Your task to perform on an android device: Open Youtube and go to "Your channel" Image 0: 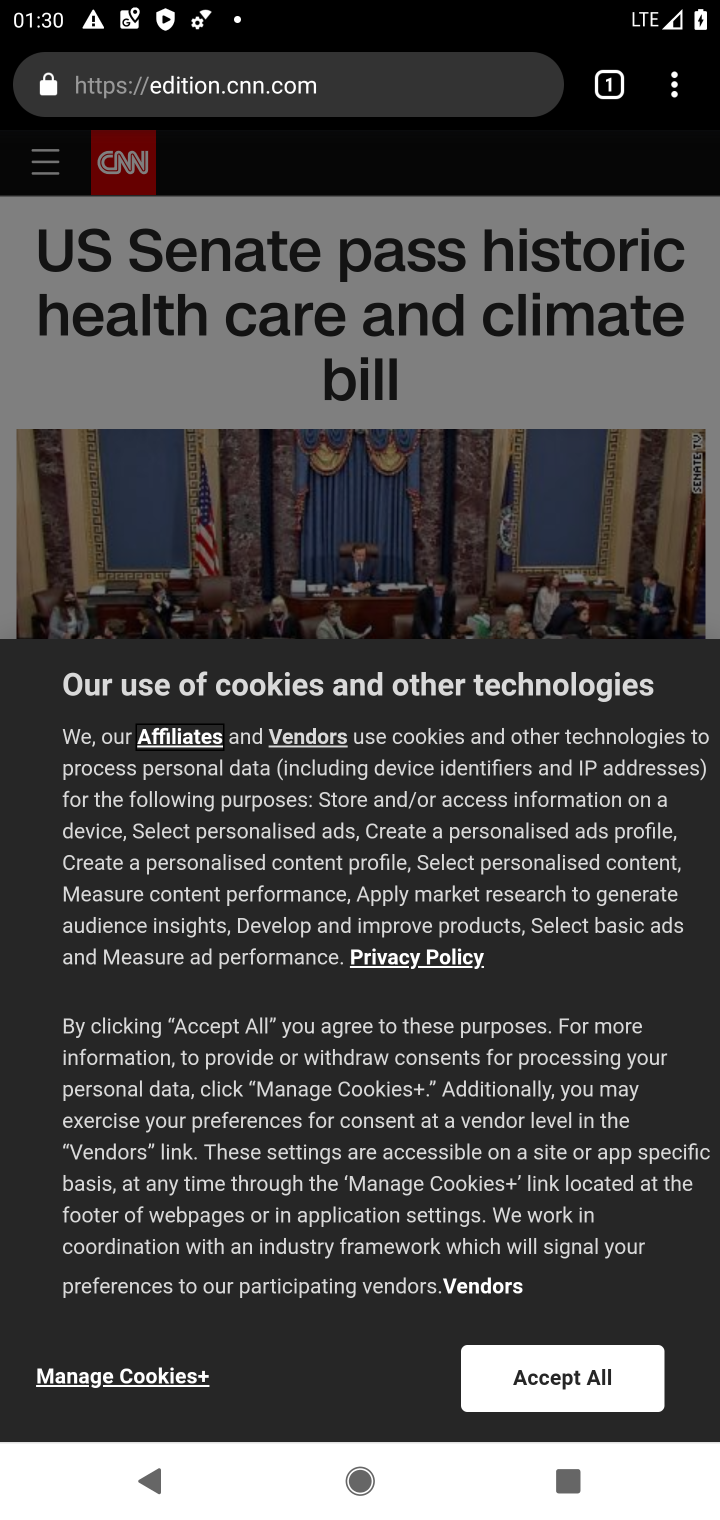
Step 0: press home button
Your task to perform on an android device: Open Youtube and go to "Your channel" Image 1: 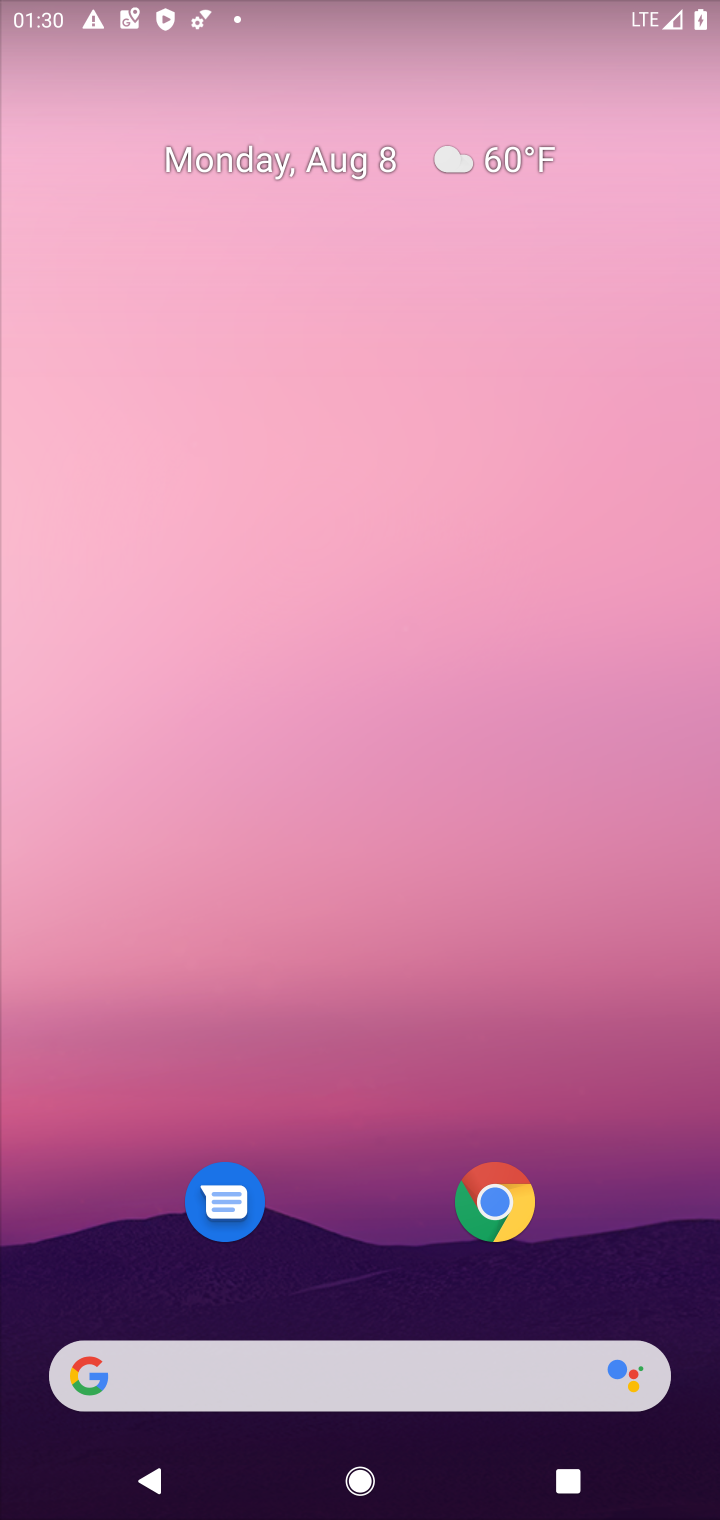
Step 1: drag from (382, 1254) to (323, 49)
Your task to perform on an android device: Open Youtube and go to "Your channel" Image 2: 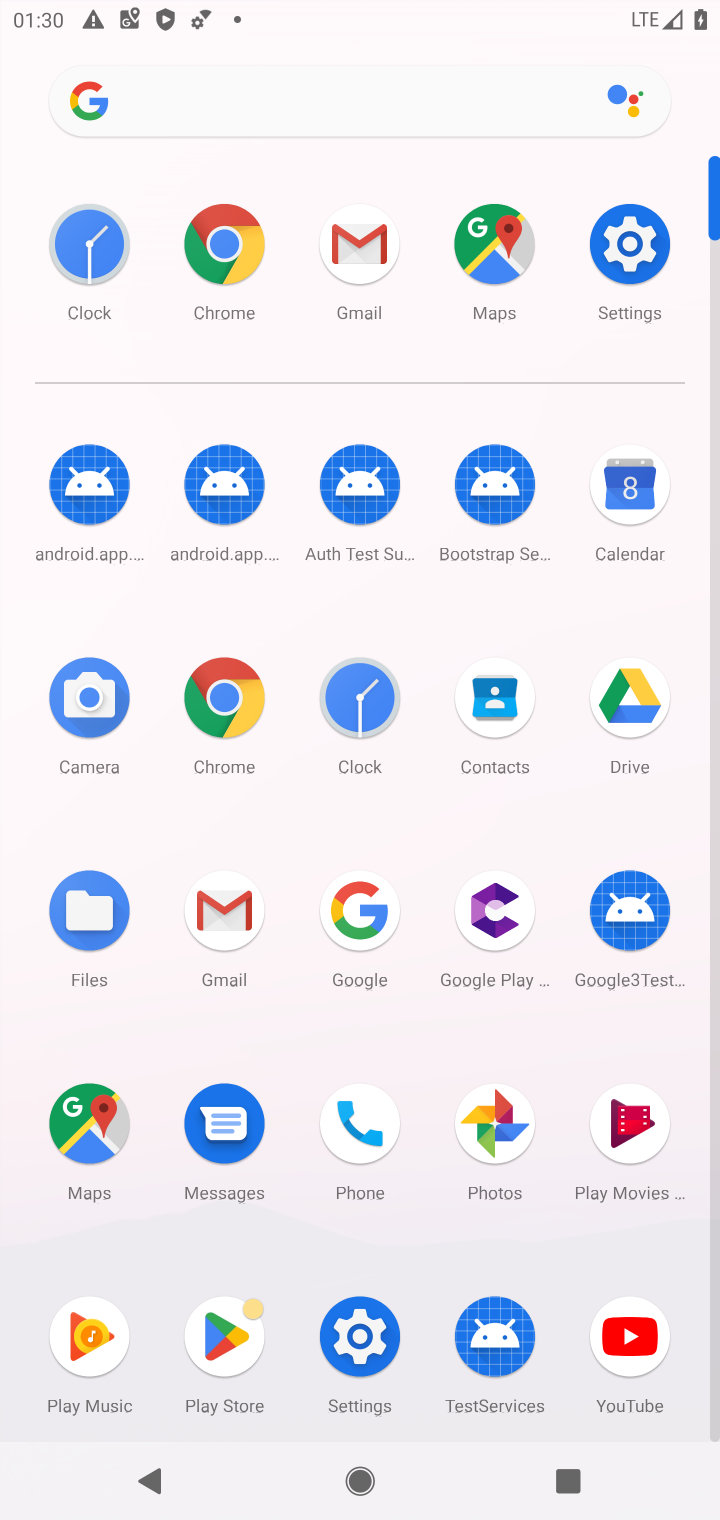
Step 2: click (632, 1328)
Your task to perform on an android device: Open Youtube and go to "Your channel" Image 3: 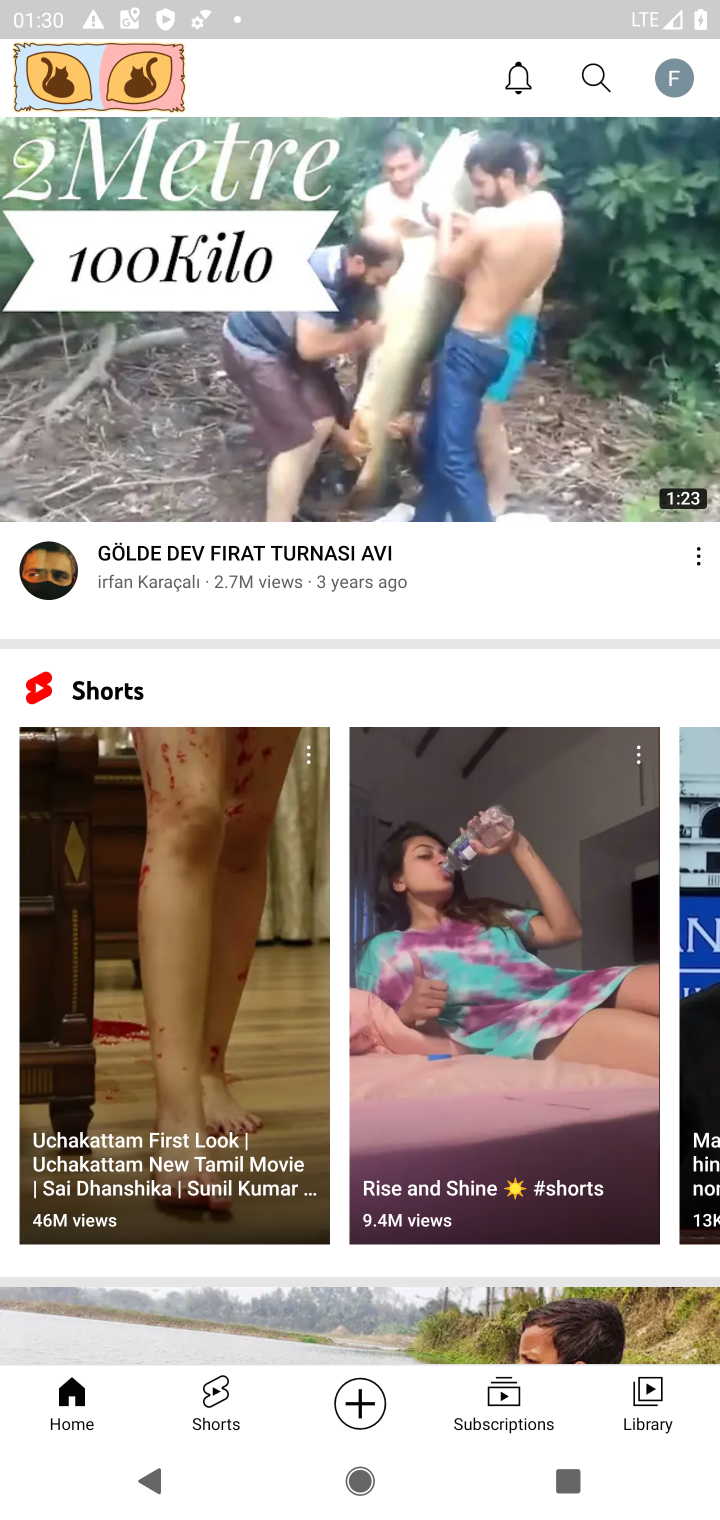
Step 3: click (683, 78)
Your task to perform on an android device: Open Youtube and go to "Your channel" Image 4: 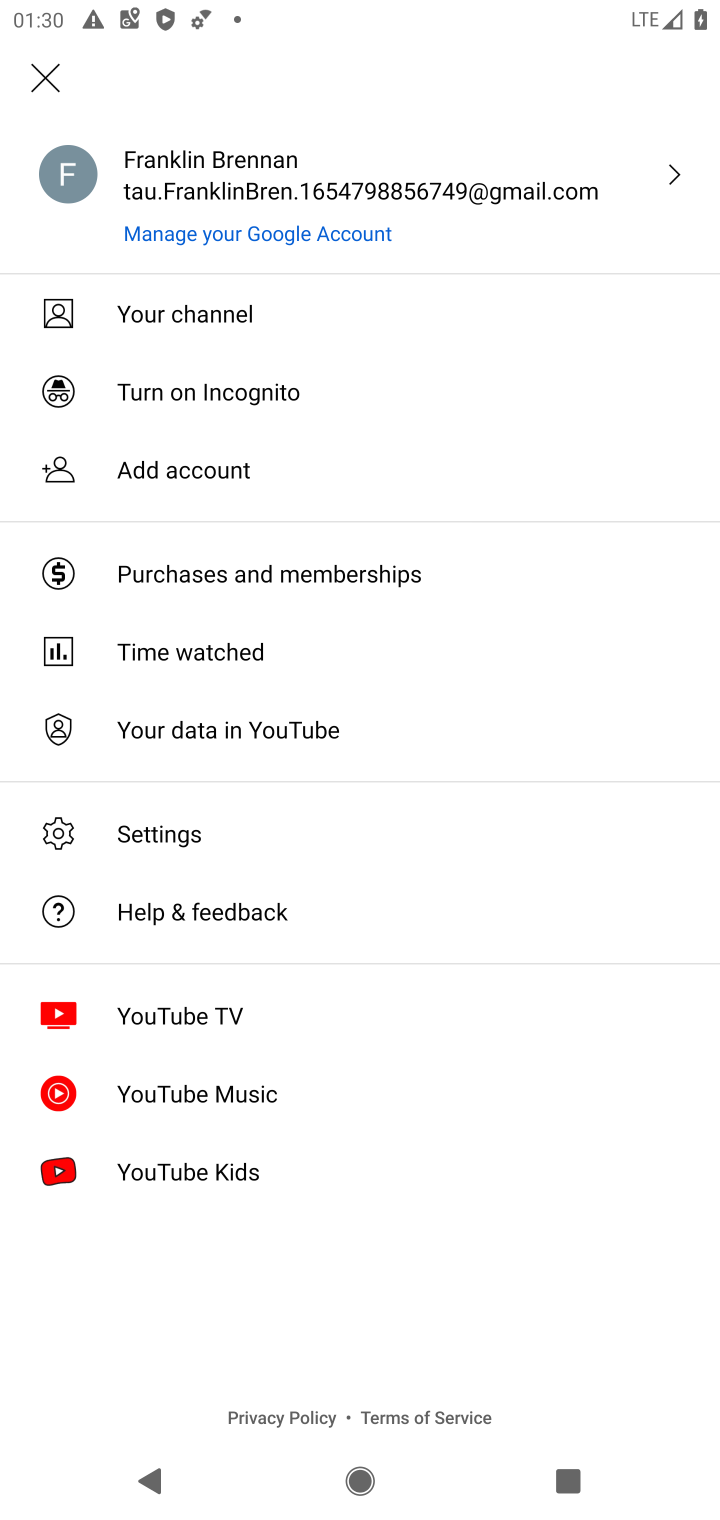
Step 4: click (214, 307)
Your task to perform on an android device: Open Youtube and go to "Your channel" Image 5: 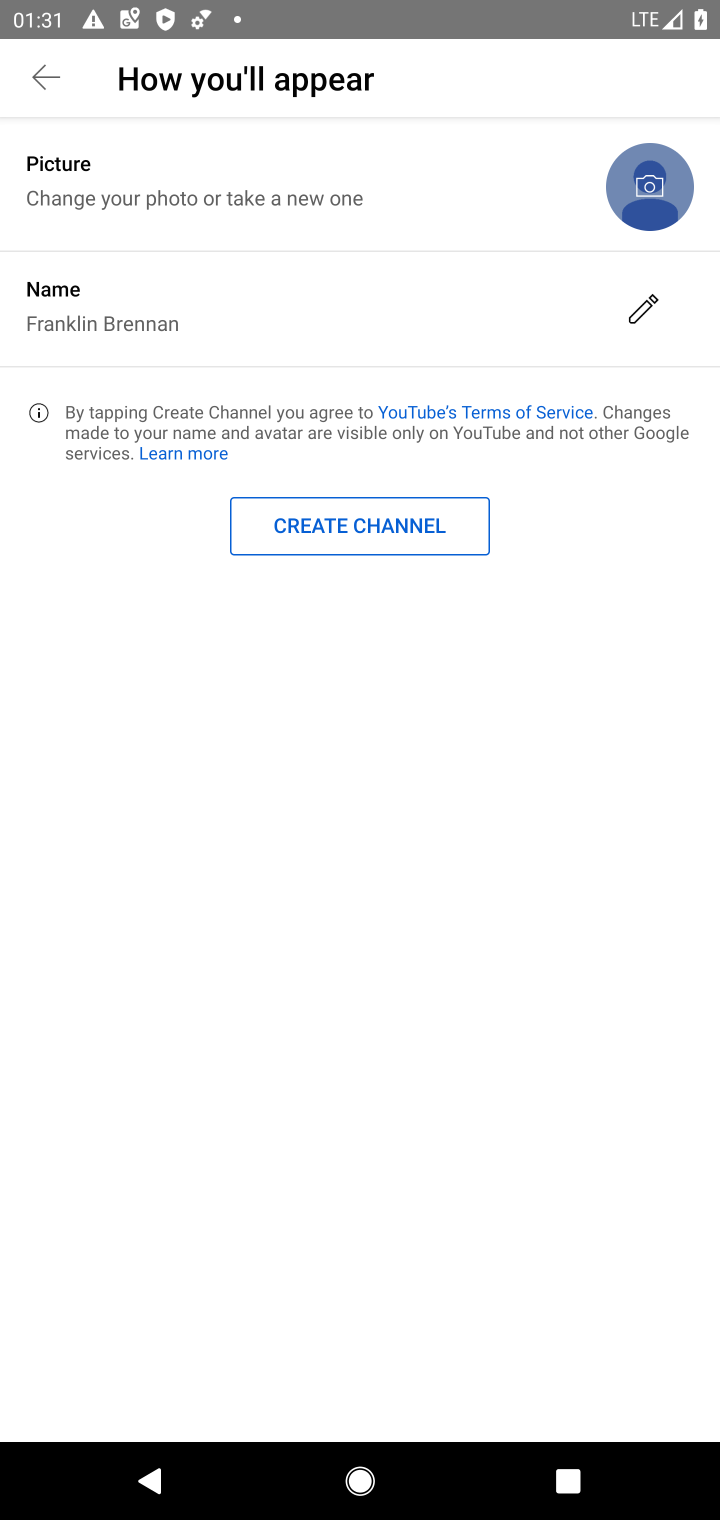
Step 5: task complete